Your task to perform on an android device: Open Google Maps Image 0: 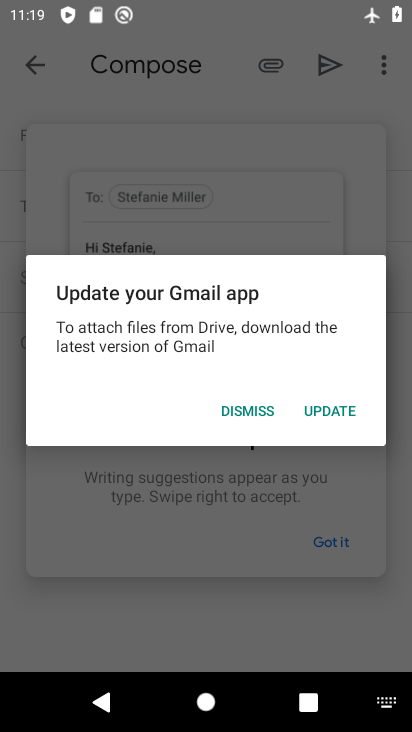
Step 0: press back button
Your task to perform on an android device: Open Google Maps Image 1: 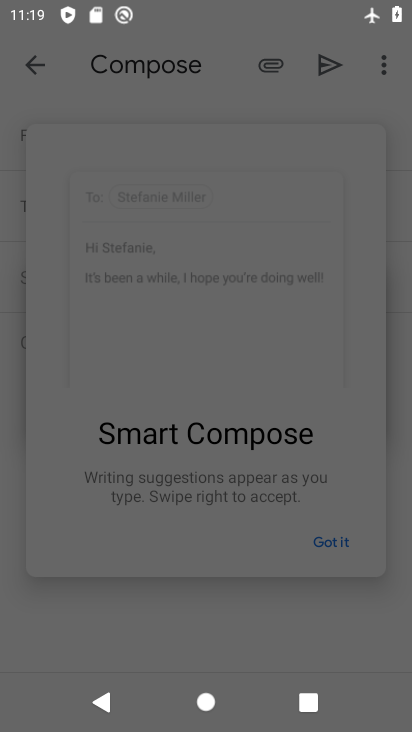
Step 1: press home button
Your task to perform on an android device: Open Google Maps Image 2: 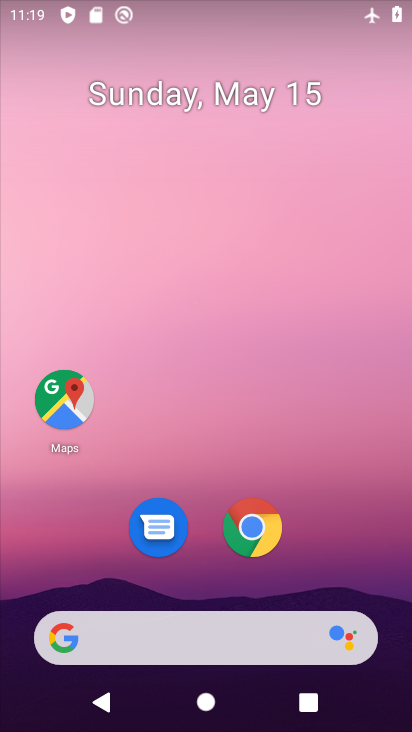
Step 2: drag from (338, 560) to (308, 56)
Your task to perform on an android device: Open Google Maps Image 3: 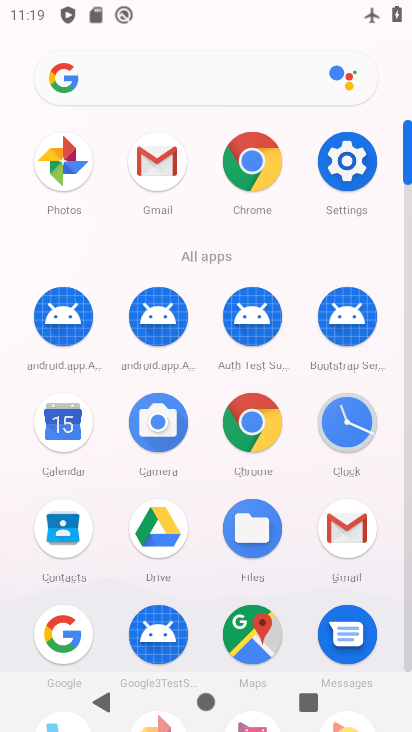
Step 3: drag from (9, 565) to (9, 247)
Your task to perform on an android device: Open Google Maps Image 4: 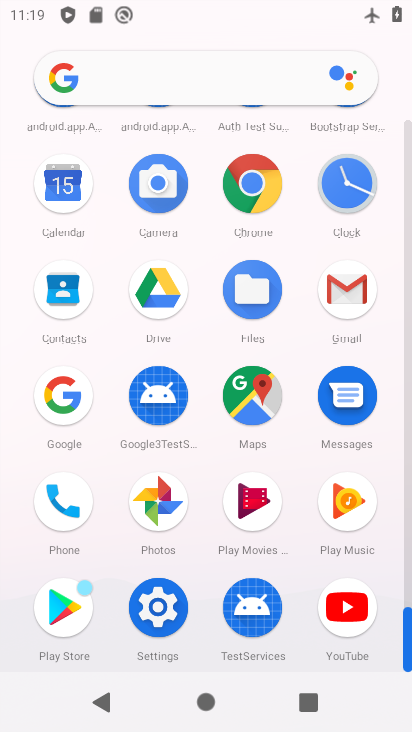
Step 4: click (253, 391)
Your task to perform on an android device: Open Google Maps Image 5: 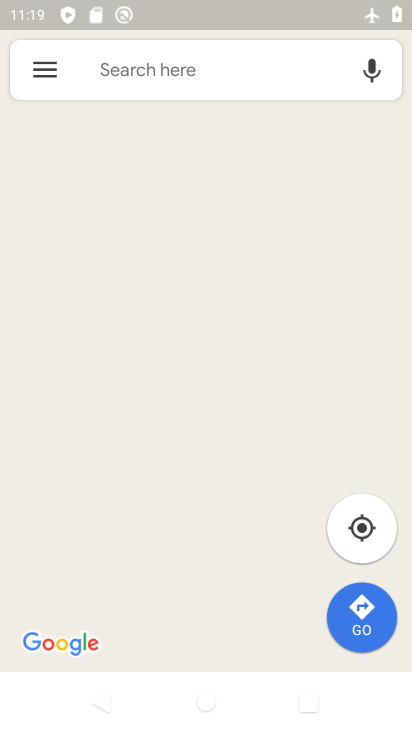
Step 5: click (235, 70)
Your task to perform on an android device: Open Google Maps Image 6: 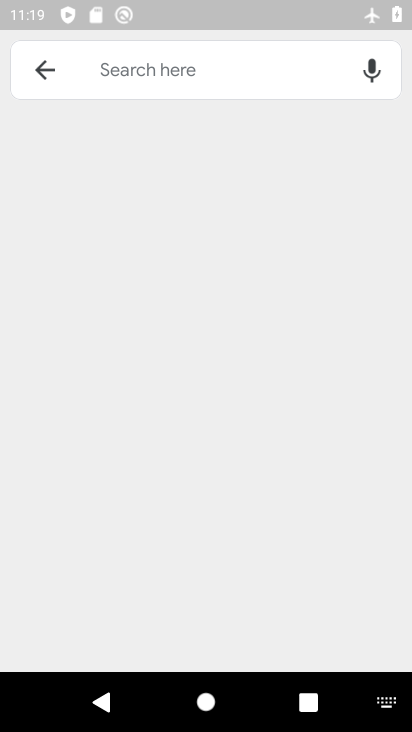
Step 6: click (35, 72)
Your task to perform on an android device: Open Google Maps Image 7: 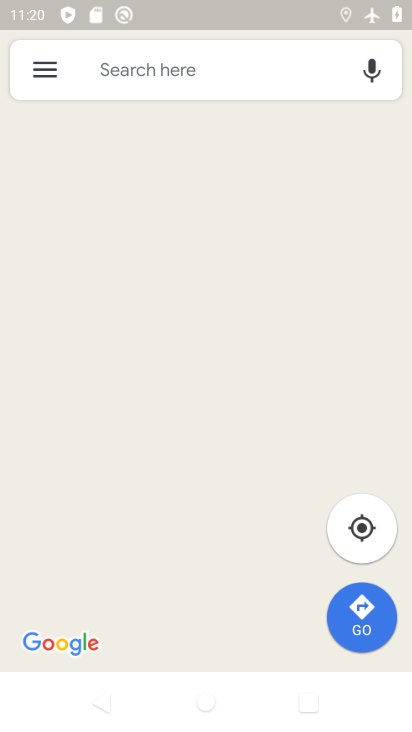
Step 7: drag from (182, 204) to (197, 551)
Your task to perform on an android device: Open Google Maps Image 8: 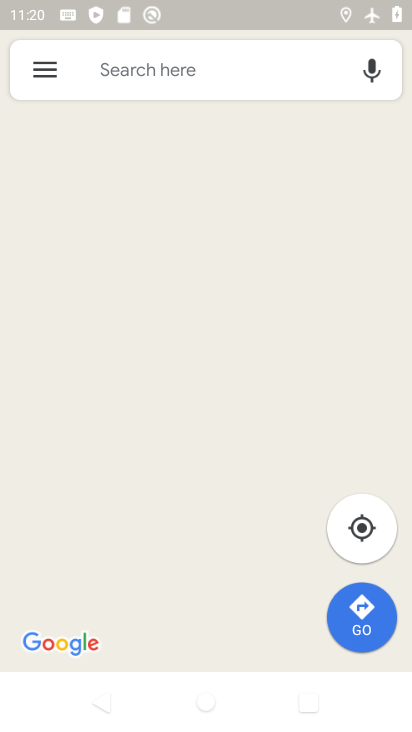
Step 8: click (221, 75)
Your task to perform on an android device: Open Google Maps Image 9: 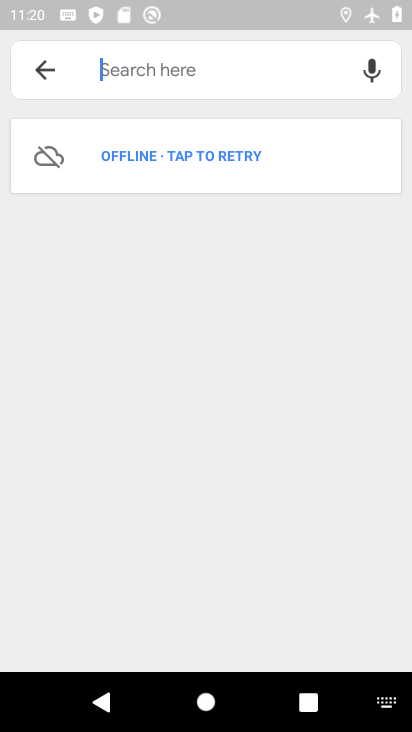
Step 9: click (37, 67)
Your task to perform on an android device: Open Google Maps Image 10: 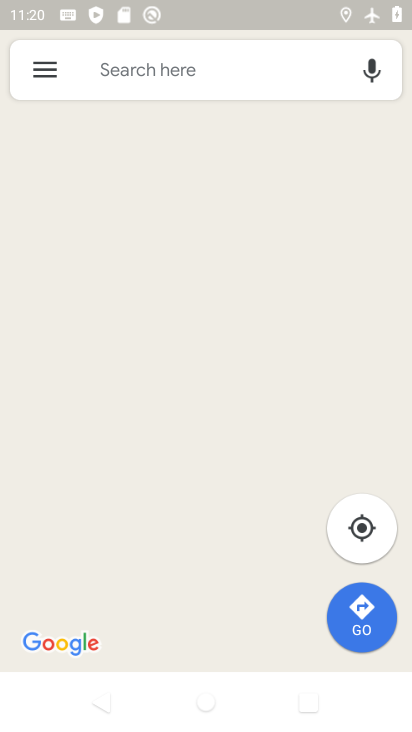
Step 10: task complete